Your task to perform on an android device: Show me productivity apps on the Play Store Image 0: 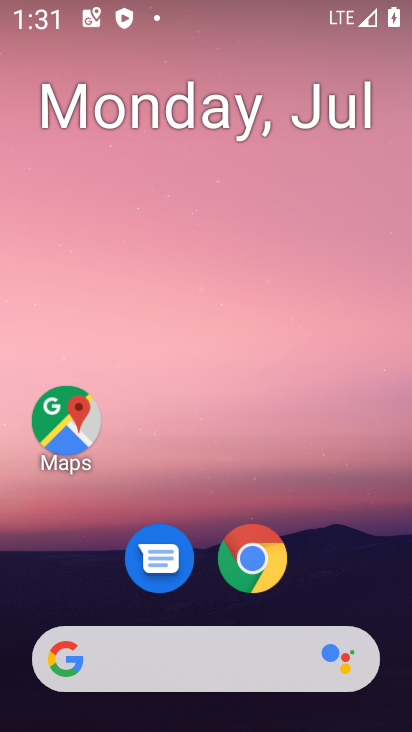
Step 0: press home button
Your task to perform on an android device: Show me productivity apps on the Play Store Image 1: 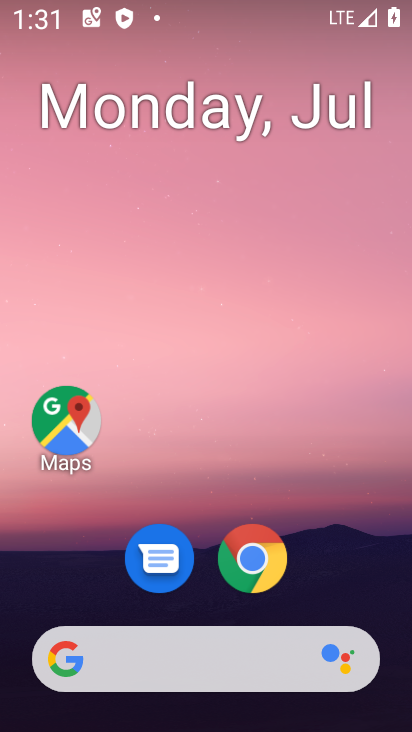
Step 1: drag from (370, 574) to (359, 123)
Your task to perform on an android device: Show me productivity apps on the Play Store Image 2: 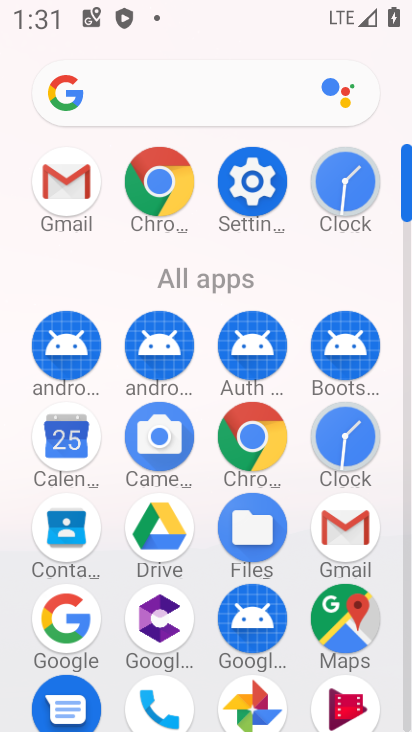
Step 2: drag from (396, 532) to (395, 309)
Your task to perform on an android device: Show me productivity apps on the Play Store Image 3: 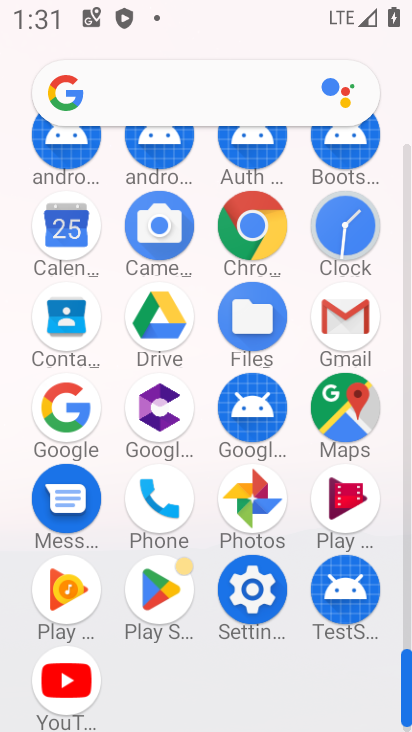
Step 3: click (165, 583)
Your task to perform on an android device: Show me productivity apps on the Play Store Image 4: 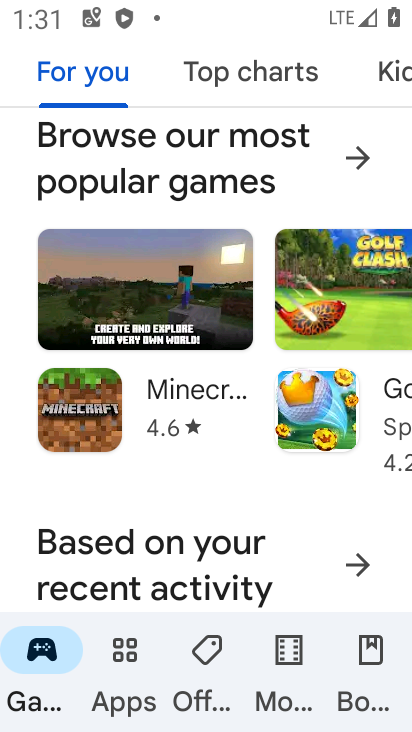
Step 4: click (127, 662)
Your task to perform on an android device: Show me productivity apps on the Play Store Image 5: 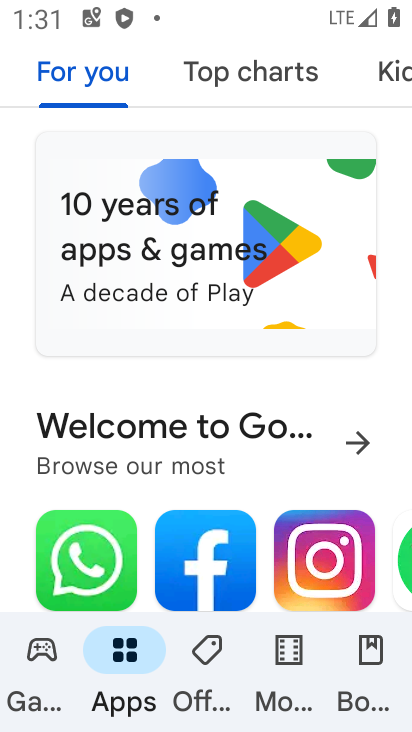
Step 5: task complete